Your task to perform on an android device: Go to battery settings Image 0: 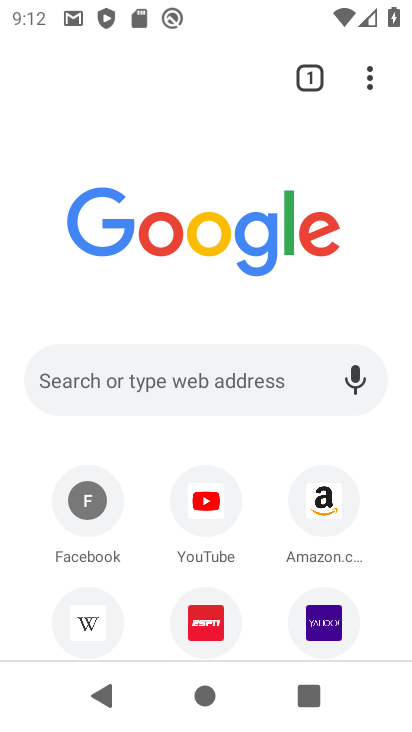
Step 0: press home button
Your task to perform on an android device: Go to battery settings Image 1: 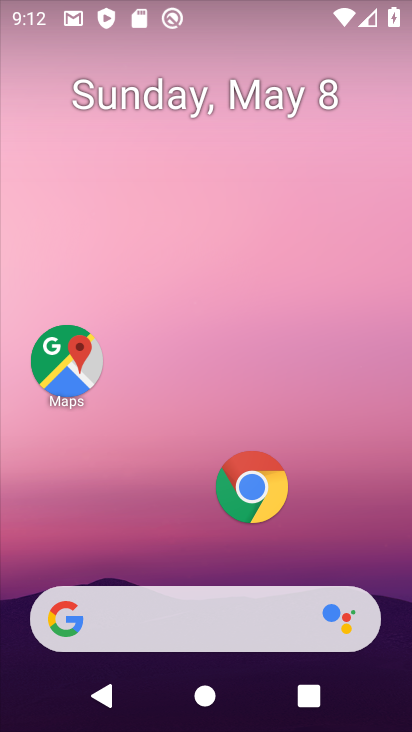
Step 1: drag from (197, 567) to (200, 37)
Your task to perform on an android device: Go to battery settings Image 2: 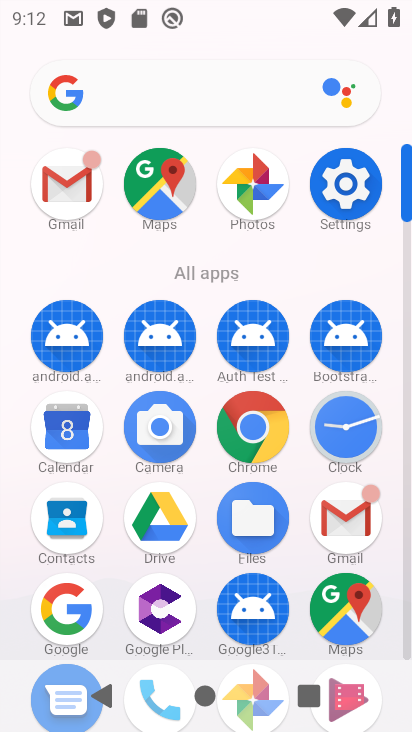
Step 2: click (346, 187)
Your task to perform on an android device: Go to battery settings Image 3: 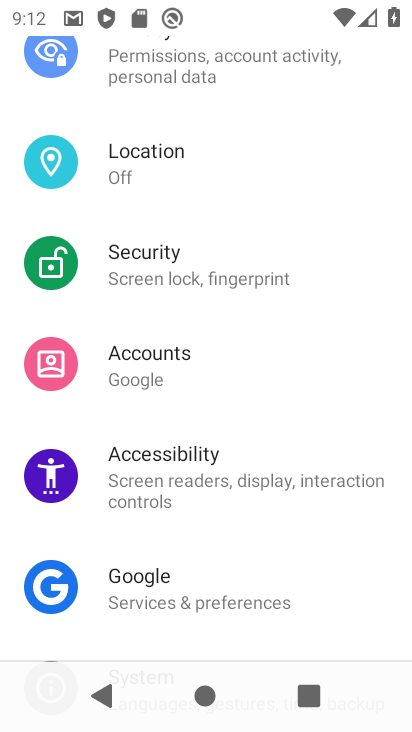
Step 3: drag from (278, 373) to (295, 728)
Your task to perform on an android device: Go to battery settings Image 4: 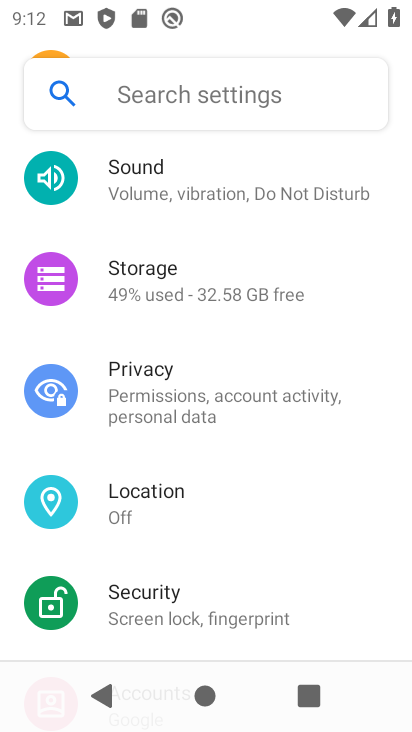
Step 4: drag from (269, 231) to (304, 695)
Your task to perform on an android device: Go to battery settings Image 5: 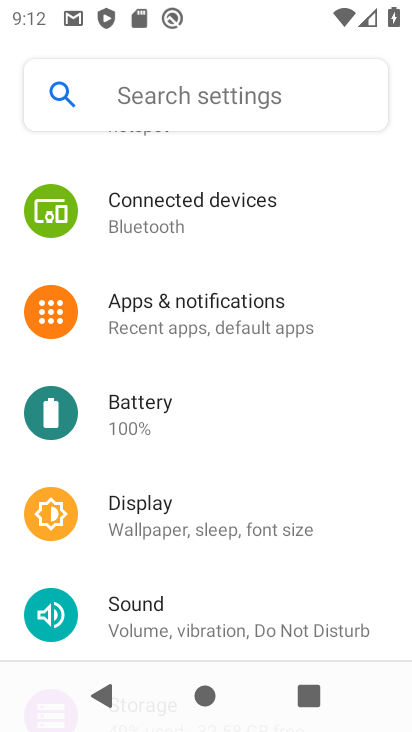
Step 5: click (231, 399)
Your task to perform on an android device: Go to battery settings Image 6: 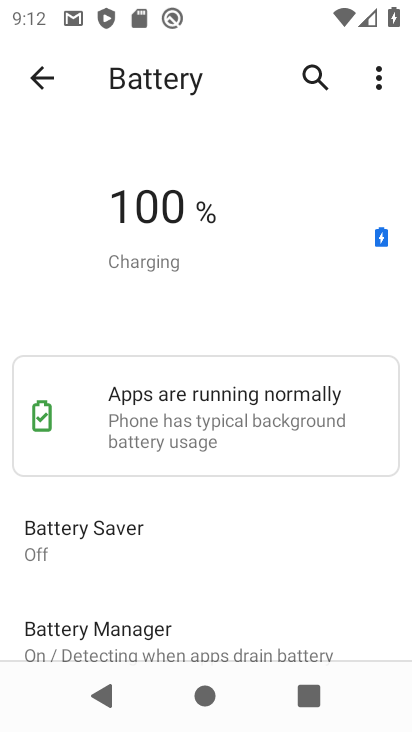
Step 6: task complete